Your task to perform on an android device: open app "Google Pay: Save, Pay, Manage" Image 0: 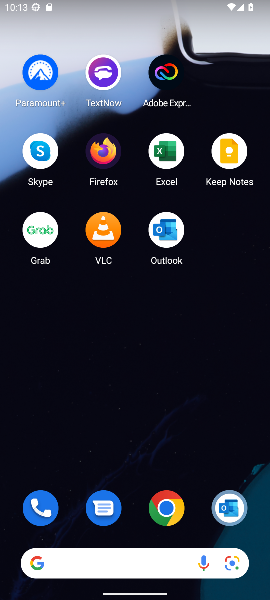
Step 0: drag from (142, 429) to (134, 74)
Your task to perform on an android device: open app "Google Pay: Save, Pay, Manage" Image 1: 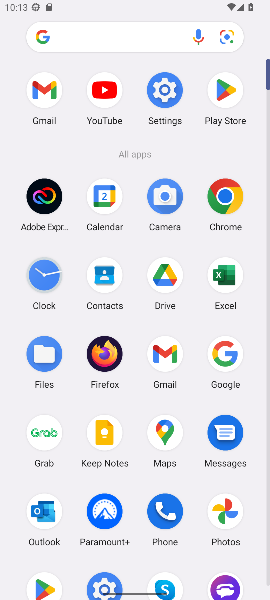
Step 1: click (226, 97)
Your task to perform on an android device: open app "Google Pay: Save, Pay, Manage" Image 2: 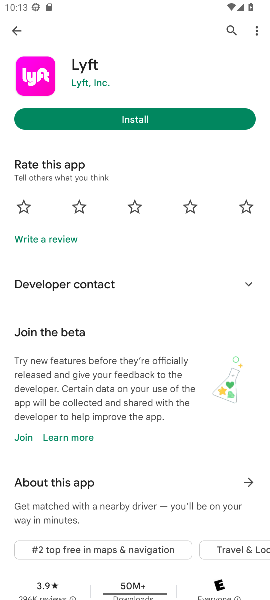
Step 2: click (231, 29)
Your task to perform on an android device: open app "Google Pay: Save, Pay, Manage" Image 3: 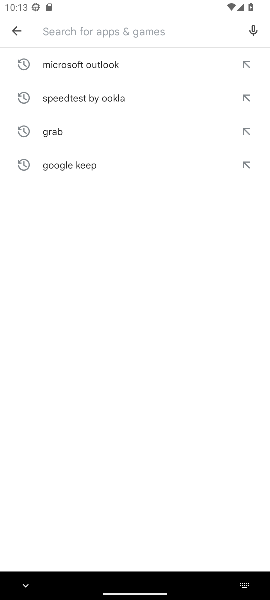
Step 3: type "Google Pay: Save, Pay, Manage"
Your task to perform on an android device: open app "Google Pay: Save, Pay, Manage" Image 4: 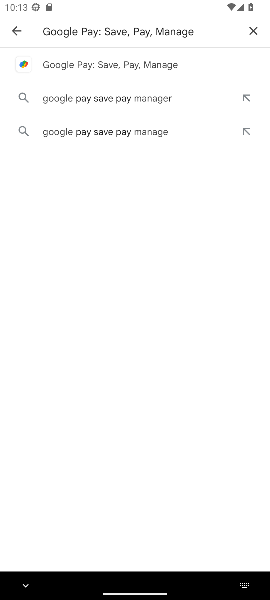
Step 4: click (82, 69)
Your task to perform on an android device: open app "Google Pay: Save, Pay, Manage" Image 5: 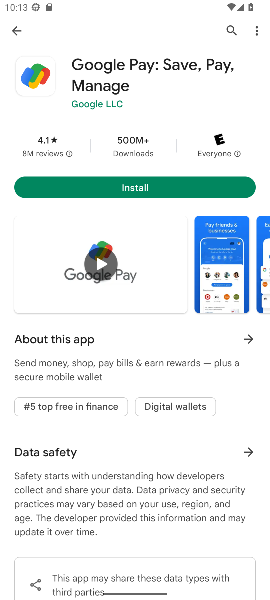
Step 5: task complete